Your task to perform on an android device: Open settings on Google Maps Image 0: 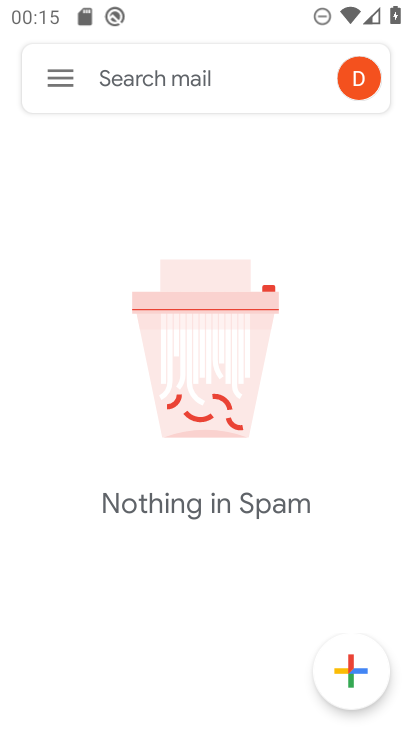
Step 0: press home button
Your task to perform on an android device: Open settings on Google Maps Image 1: 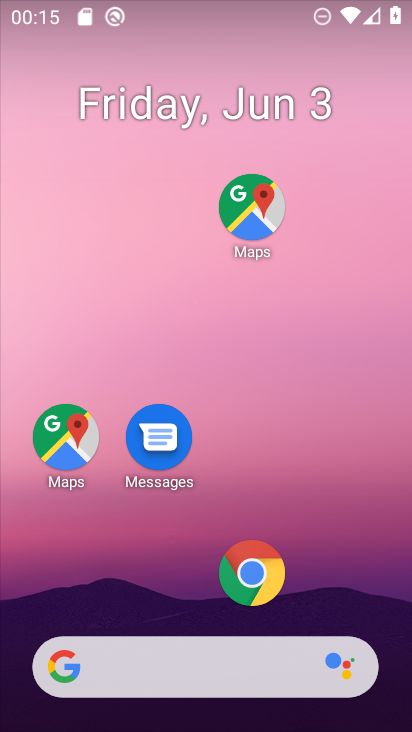
Step 1: drag from (151, 608) to (186, 13)
Your task to perform on an android device: Open settings on Google Maps Image 2: 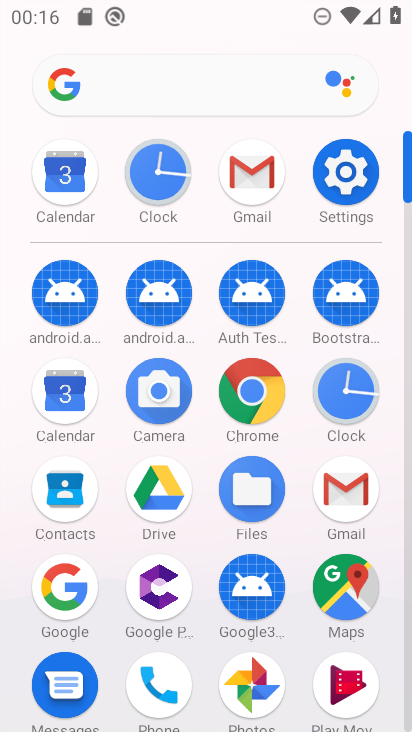
Step 2: click (346, 580)
Your task to perform on an android device: Open settings on Google Maps Image 3: 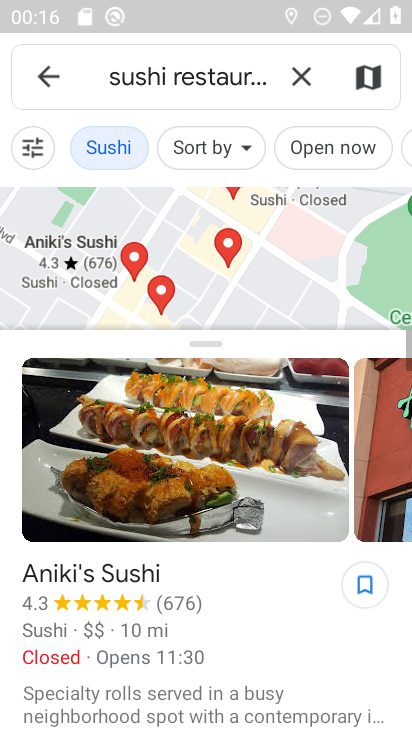
Step 3: click (38, 77)
Your task to perform on an android device: Open settings on Google Maps Image 4: 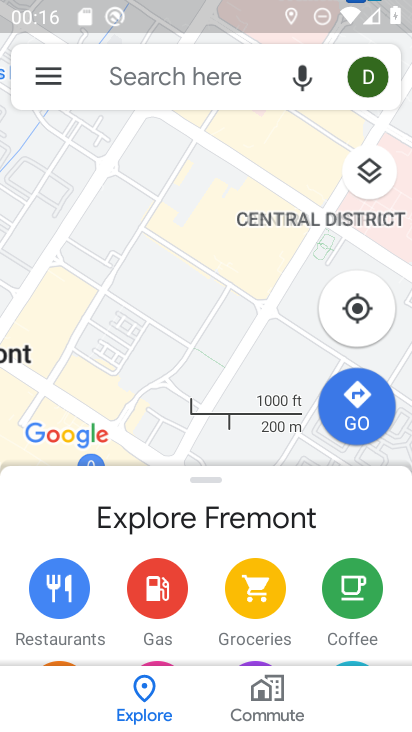
Step 4: click (38, 77)
Your task to perform on an android device: Open settings on Google Maps Image 5: 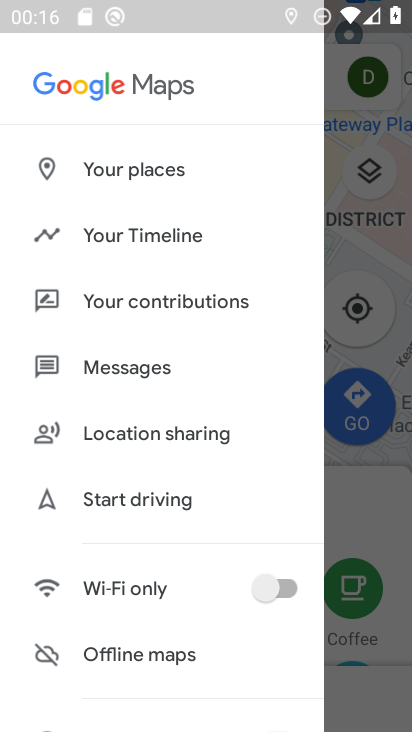
Step 5: drag from (170, 601) to (172, 326)
Your task to perform on an android device: Open settings on Google Maps Image 6: 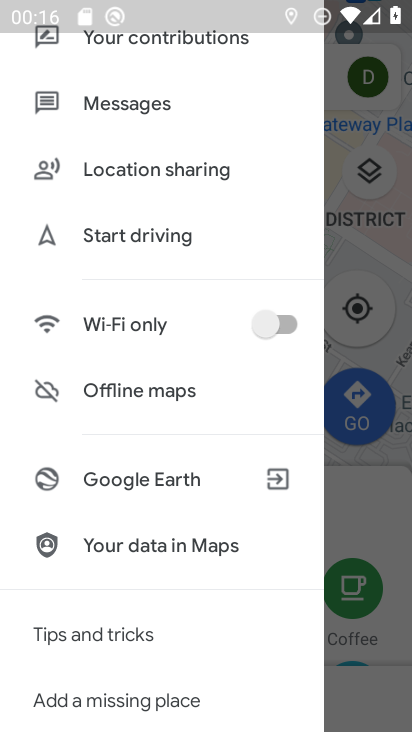
Step 6: drag from (139, 663) to (149, 507)
Your task to perform on an android device: Open settings on Google Maps Image 7: 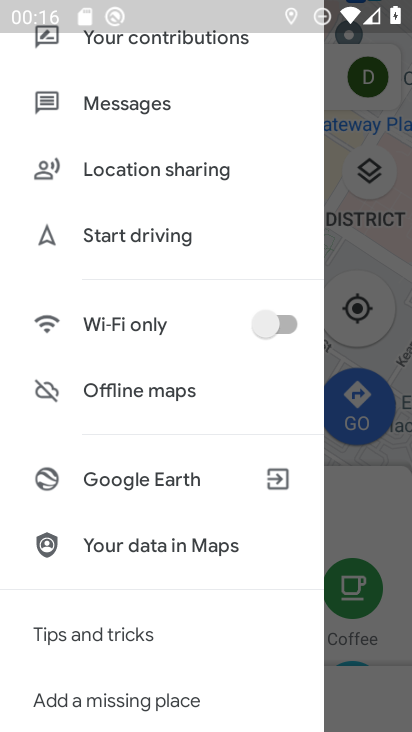
Step 7: drag from (168, 575) to (184, 120)
Your task to perform on an android device: Open settings on Google Maps Image 8: 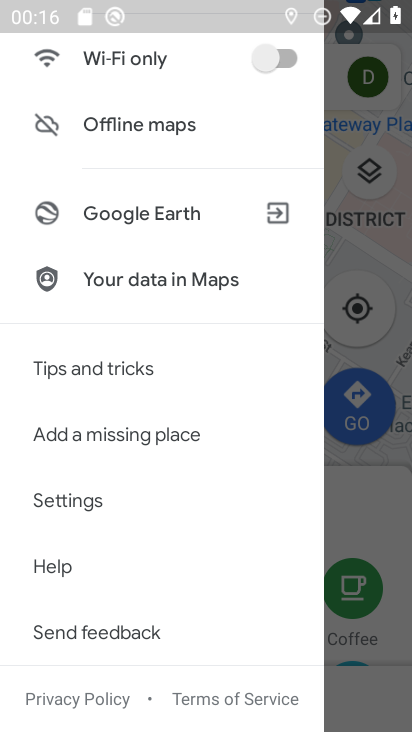
Step 8: click (90, 489)
Your task to perform on an android device: Open settings on Google Maps Image 9: 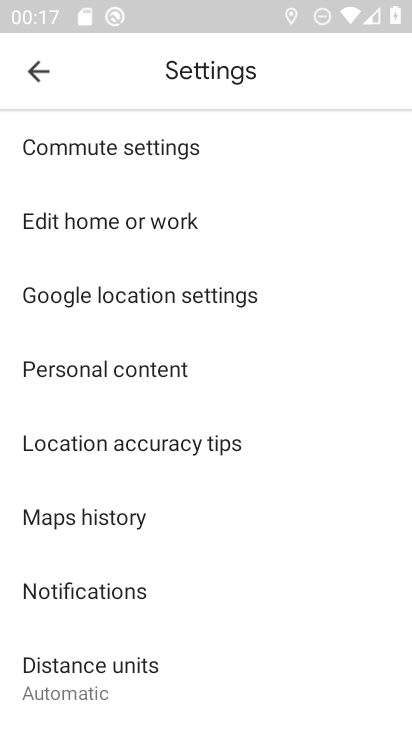
Step 9: task complete